Your task to perform on an android device: turn off location Image 0: 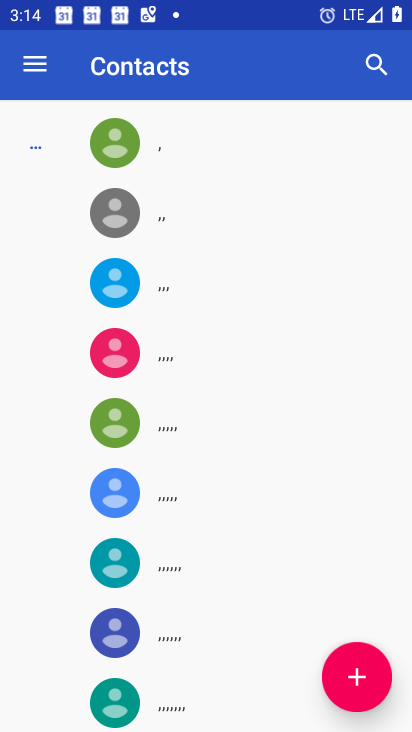
Step 0: press home button
Your task to perform on an android device: turn off location Image 1: 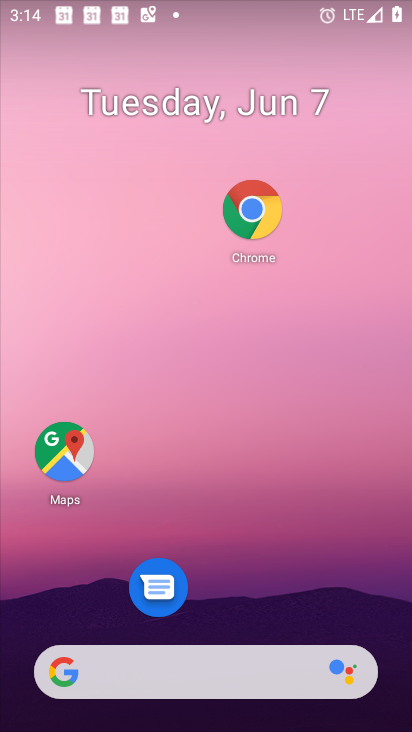
Step 1: drag from (154, 505) to (258, 119)
Your task to perform on an android device: turn off location Image 2: 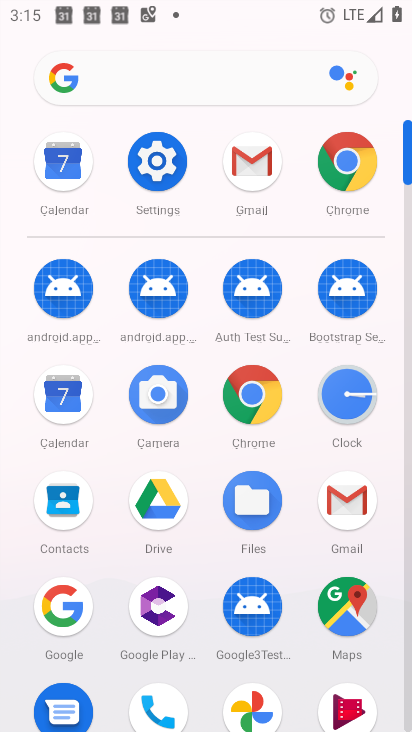
Step 2: click (155, 187)
Your task to perform on an android device: turn off location Image 3: 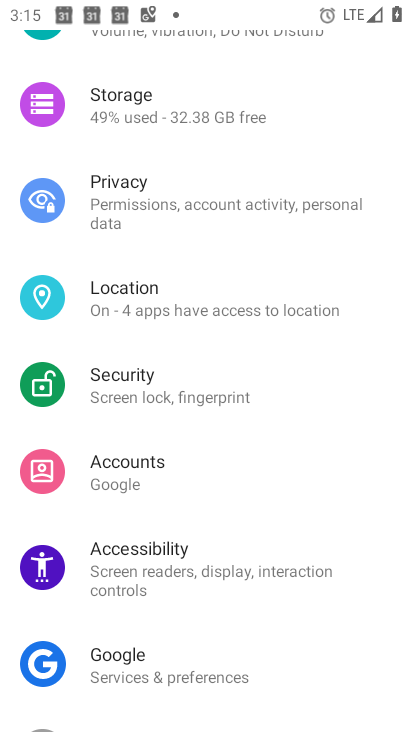
Step 3: click (207, 303)
Your task to perform on an android device: turn off location Image 4: 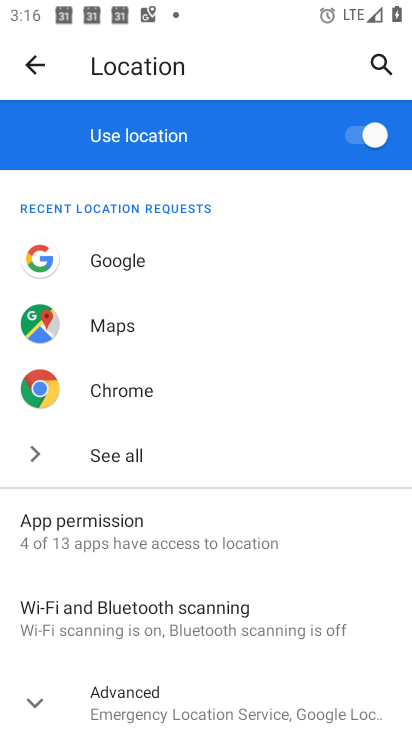
Step 4: click (349, 129)
Your task to perform on an android device: turn off location Image 5: 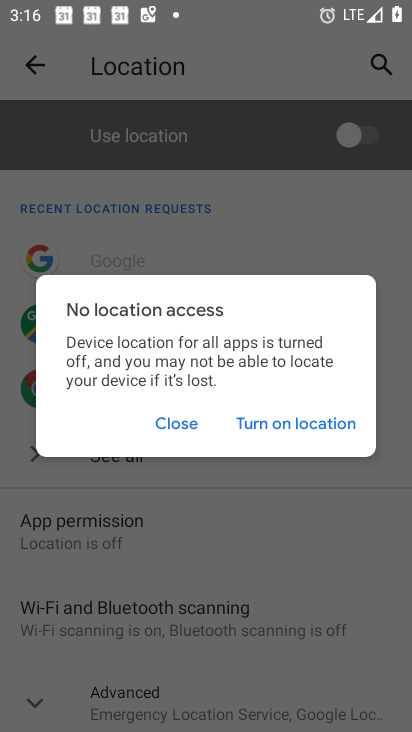
Step 5: click (187, 424)
Your task to perform on an android device: turn off location Image 6: 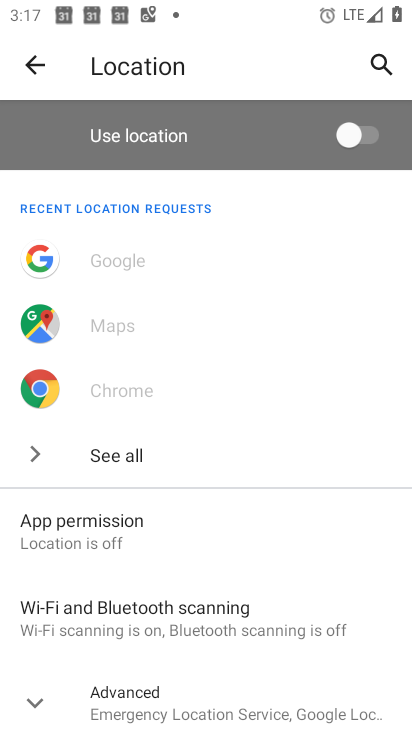
Step 6: task complete